Your task to perform on an android device: Go to eBay Image 0: 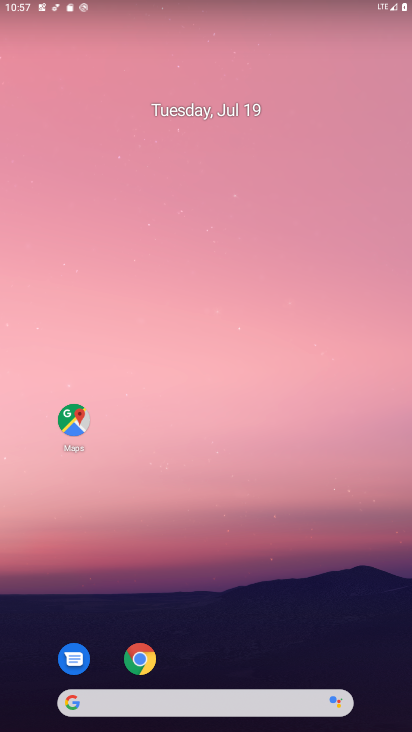
Step 0: drag from (186, 601) to (221, 85)
Your task to perform on an android device: Go to eBay Image 1: 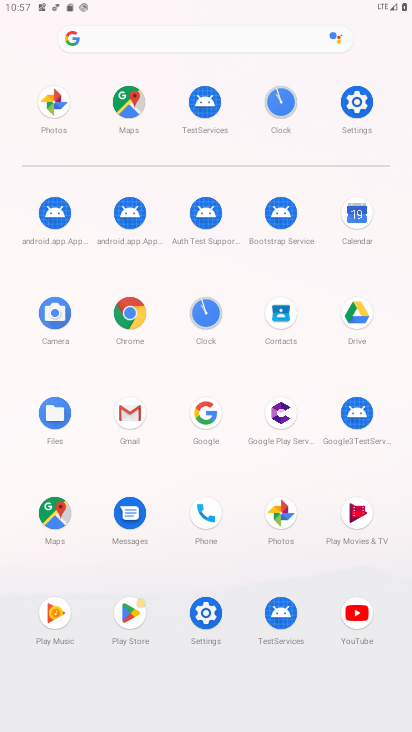
Step 1: click (153, 38)
Your task to perform on an android device: Go to eBay Image 2: 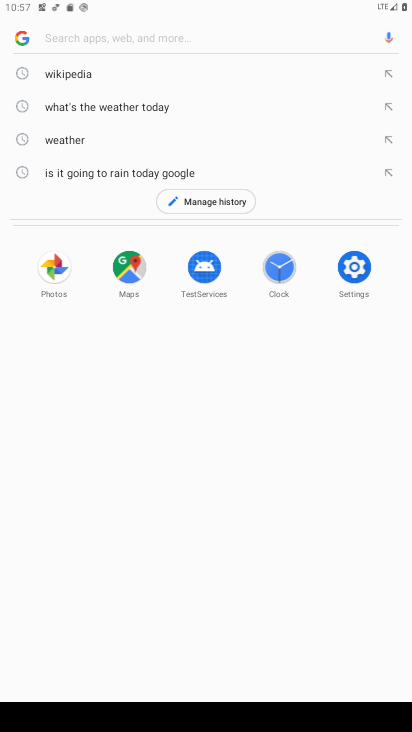
Step 2: type "eBay"
Your task to perform on an android device: Go to eBay Image 3: 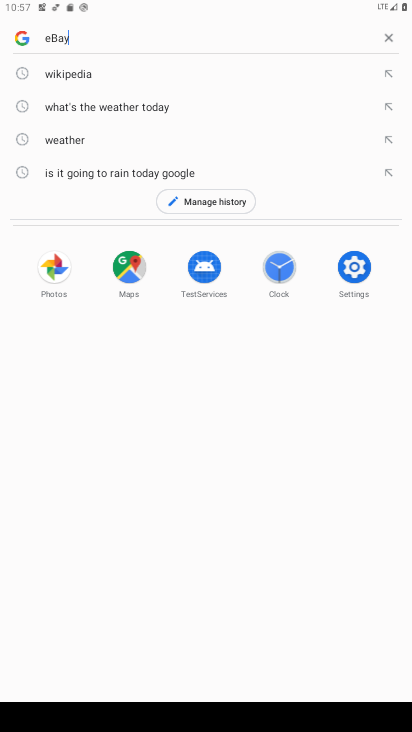
Step 3: type ""
Your task to perform on an android device: Go to eBay Image 4: 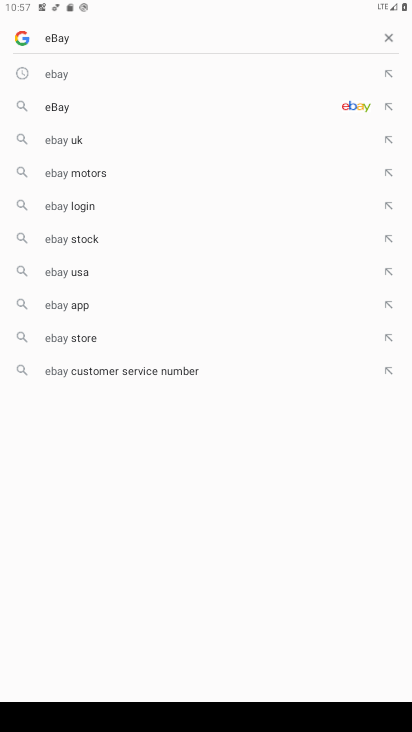
Step 4: click (98, 112)
Your task to perform on an android device: Go to eBay Image 5: 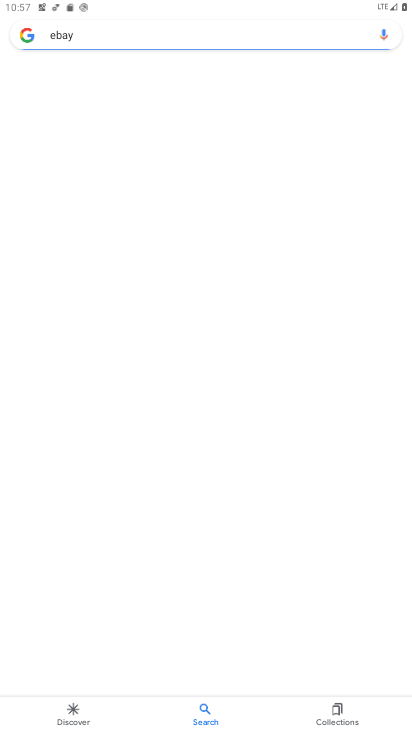
Step 5: drag from (226, 560) to (270, 203)
Your task to perform on an android device: Go to eBay Image 6: 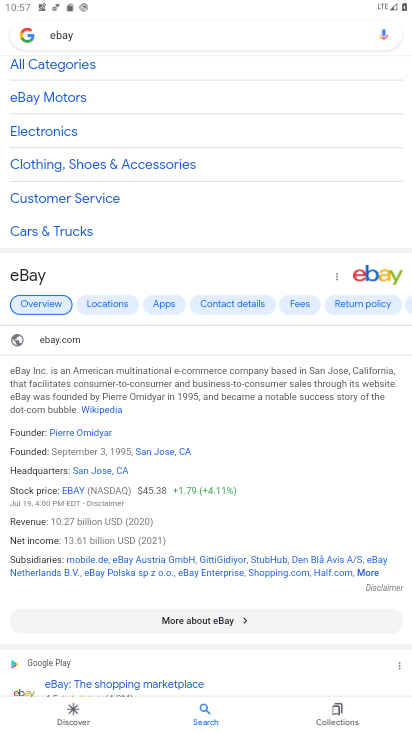
Step 6: drag from (196, 264) to (285, 709)
Your task to perform on an android device: Go to eBay Image 7: 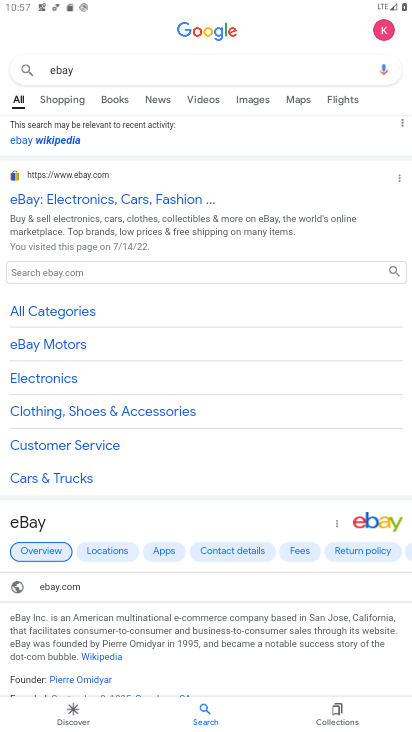
Step 7: click (66, 200)
Your task to perform on an android device: Go to eBay Image 8: 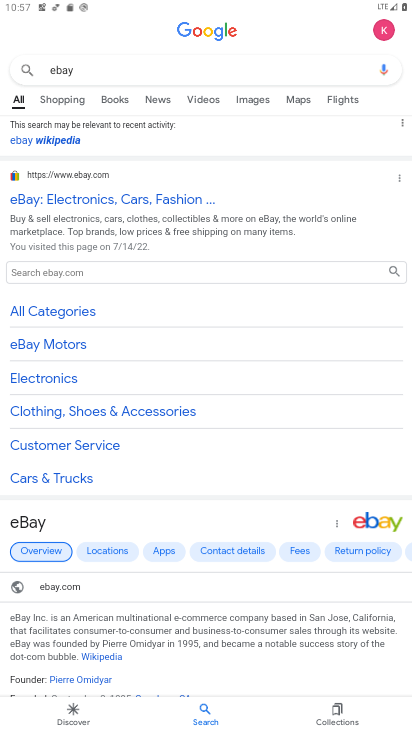
Step 8: task complete